Your task to perform on an android device: turn on wifi Image 0: 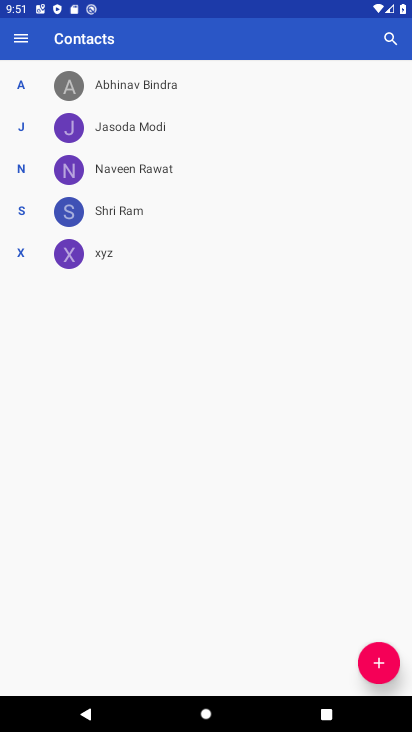
Step 0: press home button
Your task to perform on an android device: turn on wifi Image 1: 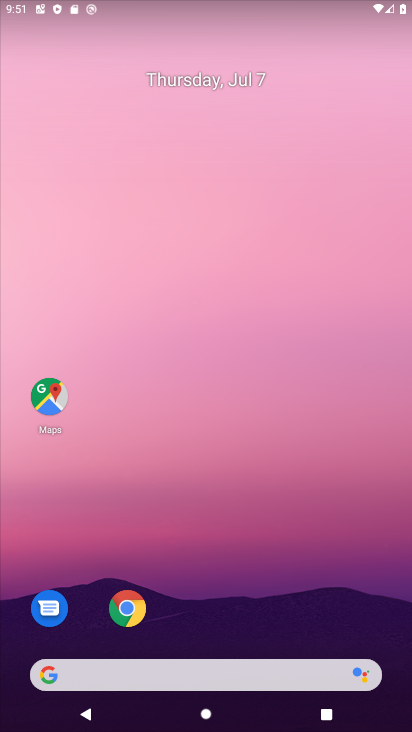
Step 1: drag from (219, 627) to (258, 96)
Your task to perform on an android device: turn on wifi Image 2: 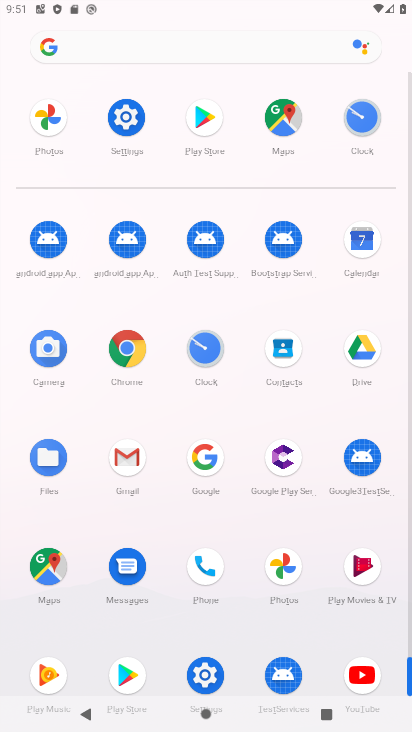
Step 2: click (128, 114)
Your task to perform on an android device: turn on wifi Image 3: 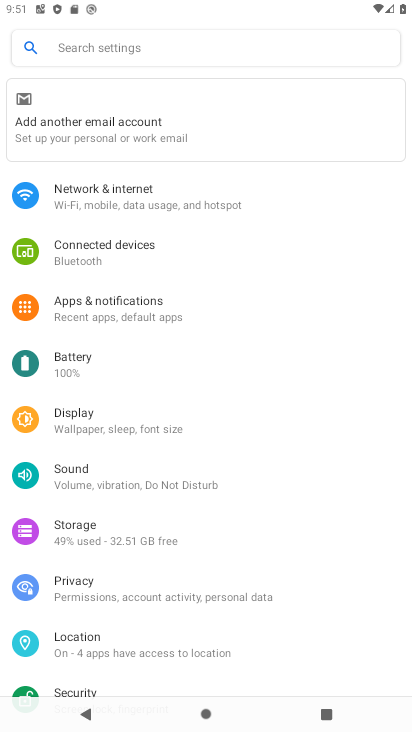
Step 3: click (116, 192)
Your task to perform on an android device: turn on wifi Image 4: 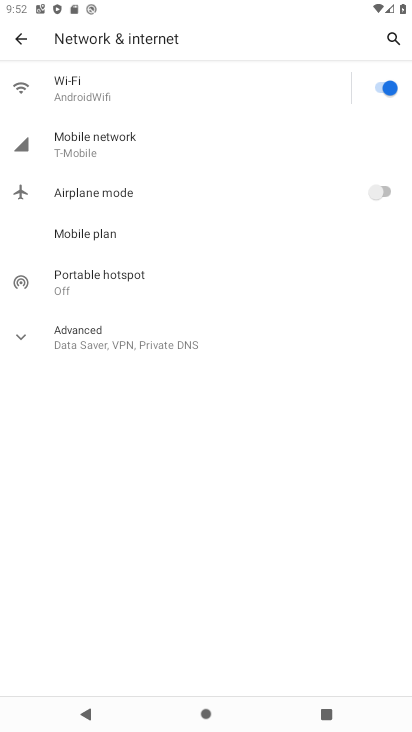
Step 4: task complete